Your task to perform on an android device: Go to notification settings Image 0: 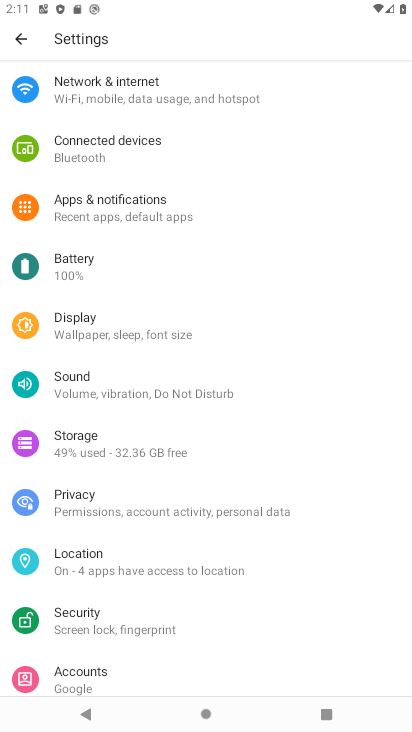
Step 0: click (190, 220)
Your task to perform on an android device: Go to notification settings Image 1: 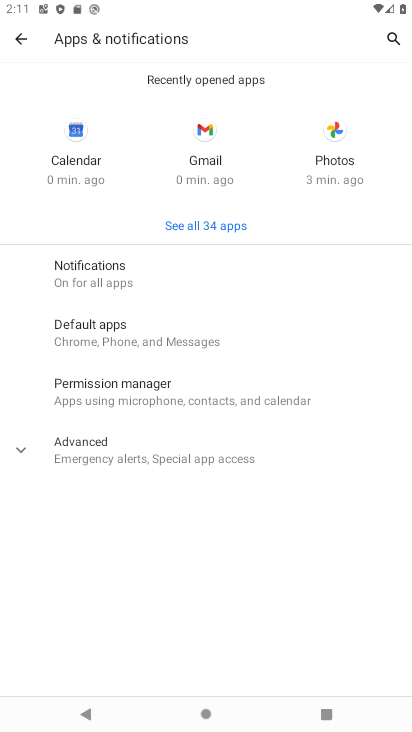
Step 1: task complete